Your task to perform on an android device: Open Youtube and go to the subscriptions tab Image 0: 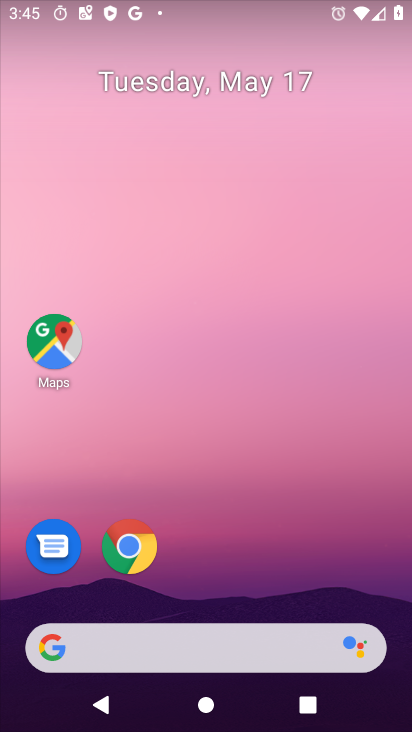
Step 0: drag from (399, 637) to (397, 335)
Your task to perform on an android device: Open Youtube and go to the subscriptions tab Image 1: 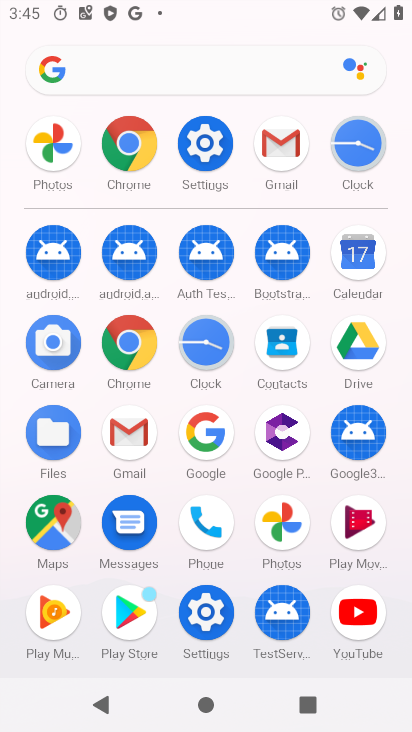
Step 1: click (362, 625)
Your task to perform on an android device: Open Youtube and go to the subscriptions tab Image 2: 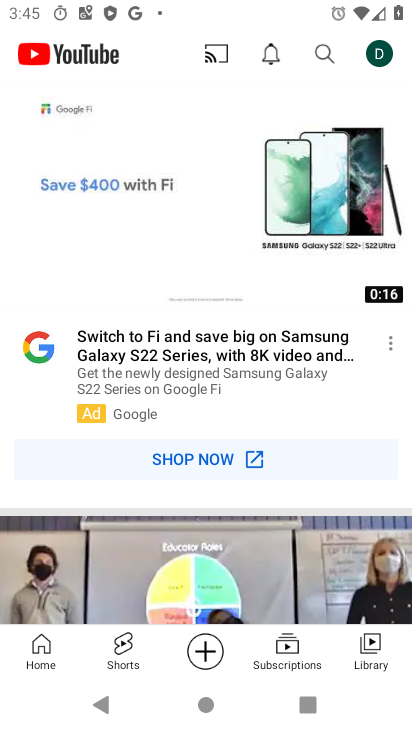
Step 2: click (281, 647)
Your task to perform on an android device: Open Youtube and go to the subscriptions tab Image 3: 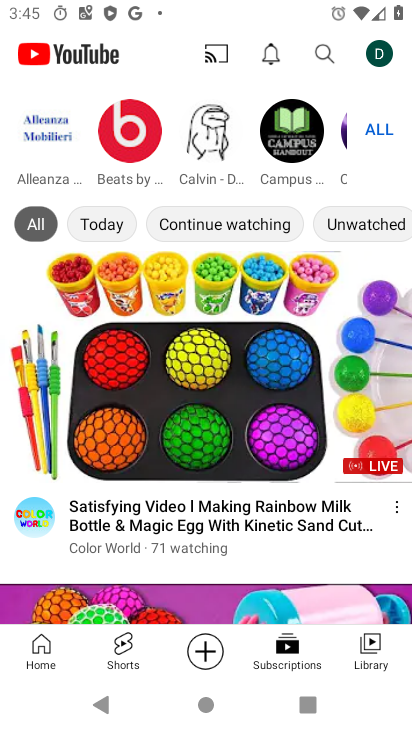
Step 3: task complete